Your task to perform on an android device: change the clock style Image 0: 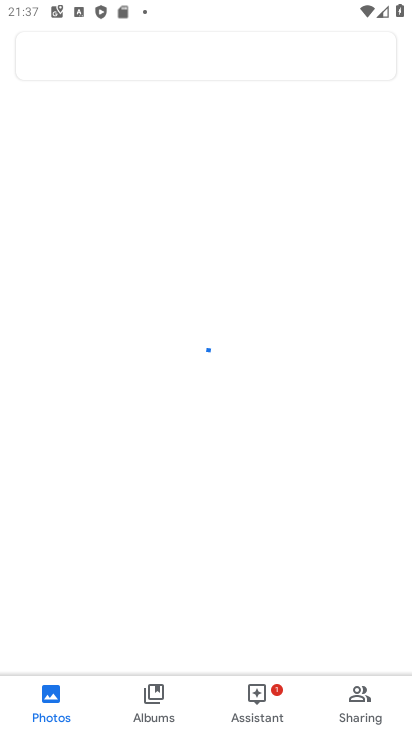
Step 0: drag from (389, 698) to (322, 102)
Your task to perform on an android device: change the clock style Image 1: 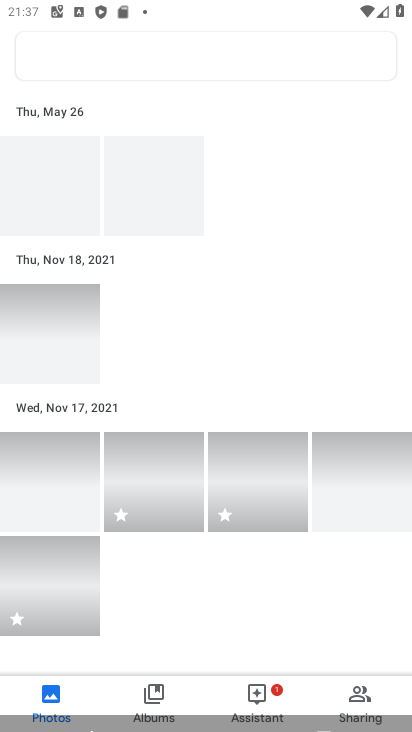
Step 1: press home button
Your task to perform on an android device: change the clock style Image 2: 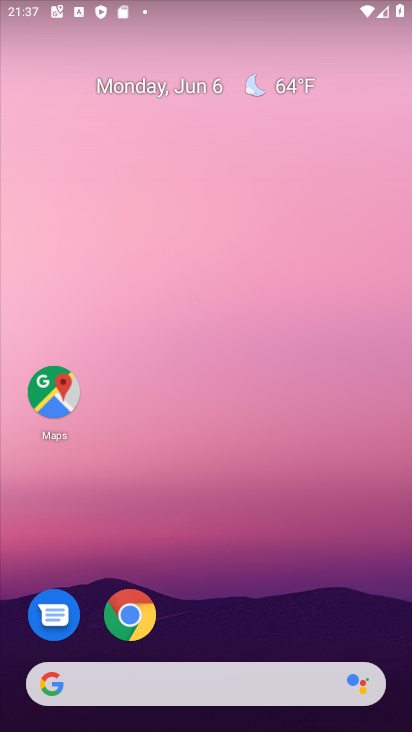
Step 2: drag from (386, 622) to (313, 225)
Your task to perform on an android device: change the clock style Image 3: 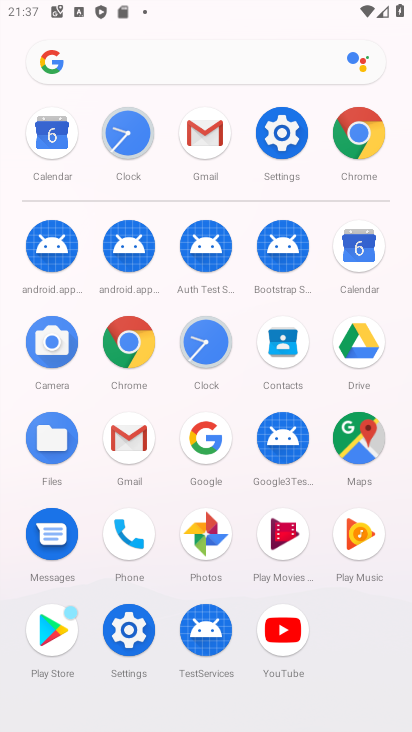
Step 3: click (205, 341)
Your task to perform on an android device: change the clock style Image 4: 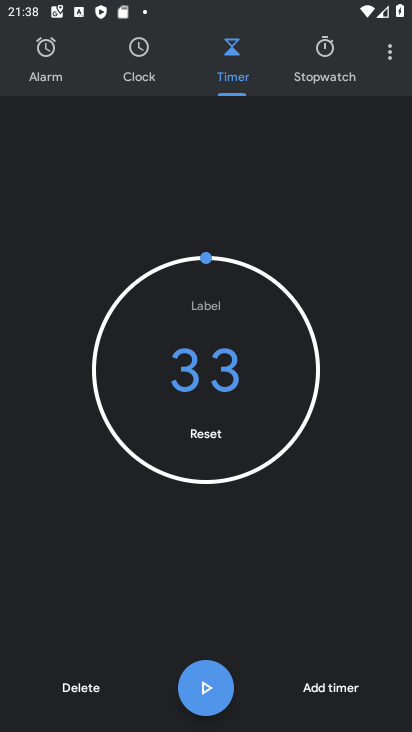
Step 4: click (388, 57)
Your task to perform on an android device: change the clock style Image 5: 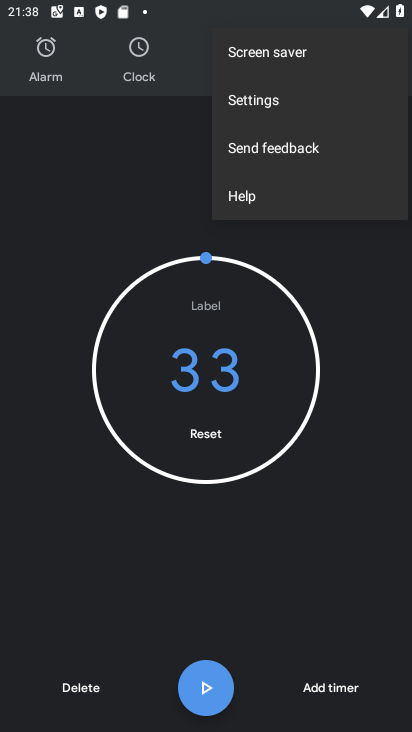
Step 5: click (258, 109)
Your task to perform on an android device: change the clock style Image 6: 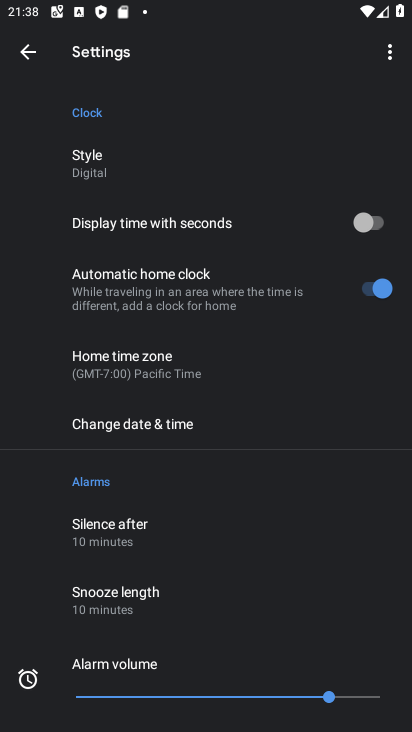
Step 6: click (74, 175)
Your task to perform on an android device: change the clock style Image 7: 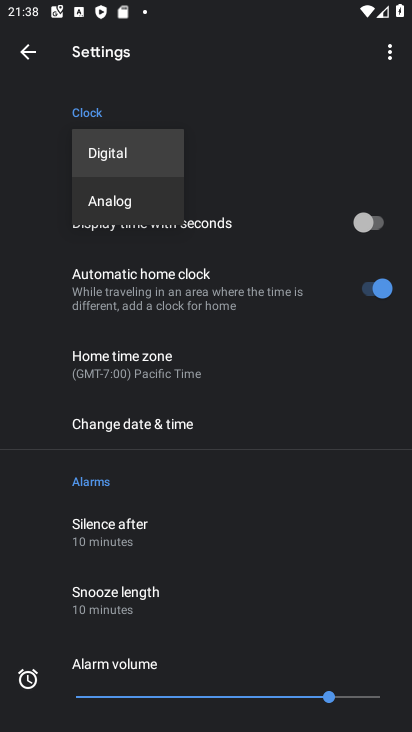
Step 7: click (111, 197)
Your task to perform on an android device: change the clock style Image 8: 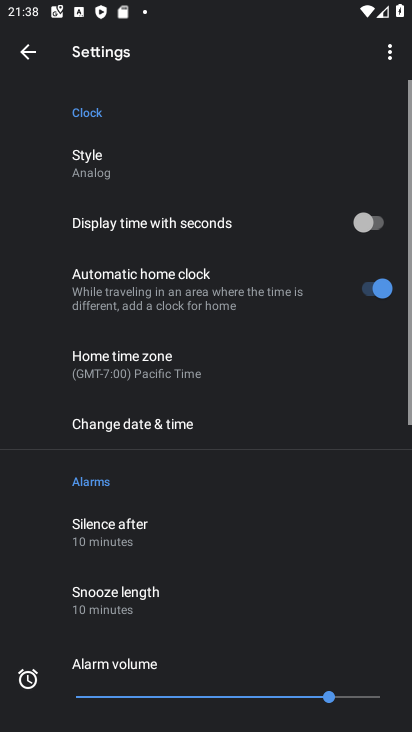
Step 8: task complete